Your task to perform on an android device: turn off notifications in google photos Image 0: 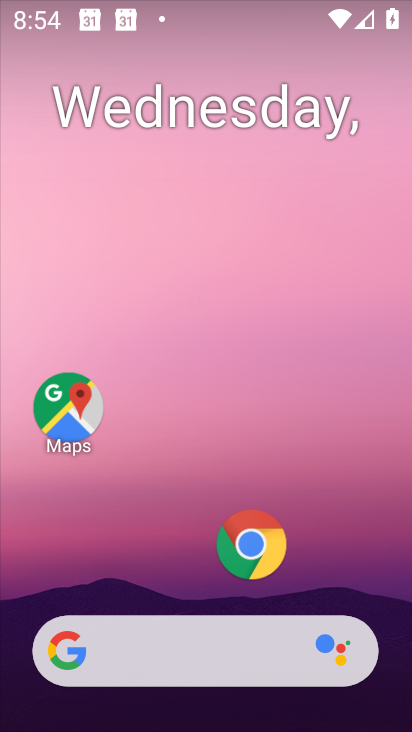
Step 0: drag from (262, 609) to (139, 30)
Your task to perform on an android device: turn off notifications in google photos Image 1: 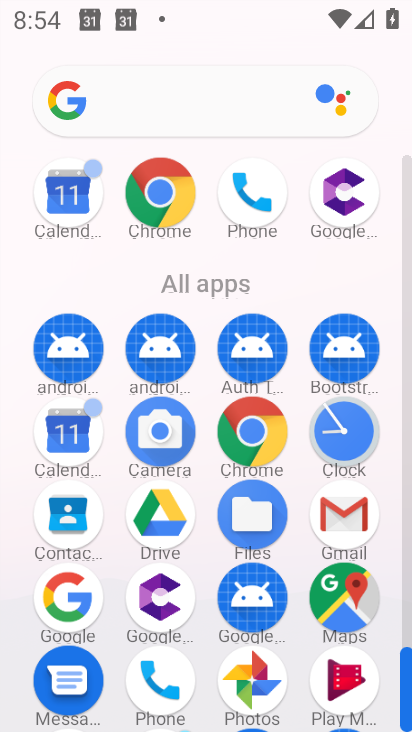
Step 1: click (252, 670)
Your task to perform on an android device: turn off notifications in google photos Image 2: 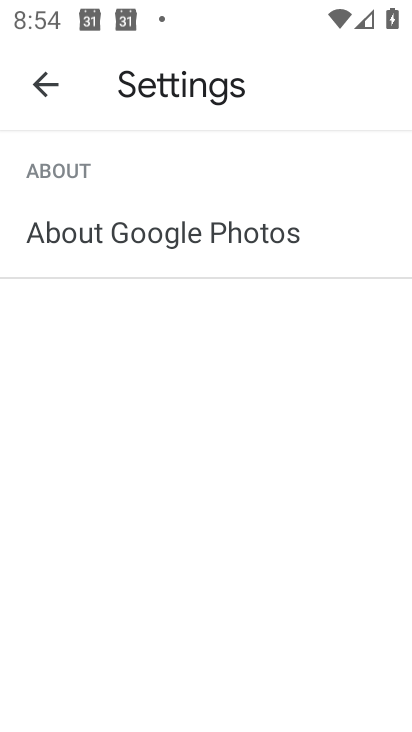
Step 2: click (49, 99)
Your task to perform on an android device: turn off notifications in google photos Image 3: 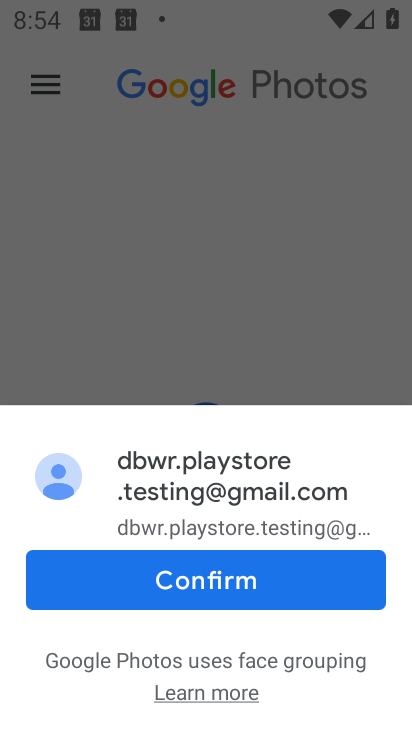
Step 3: click (43, 90)
Your task to perform on an android device: turn off notifications in google photos Image 4: 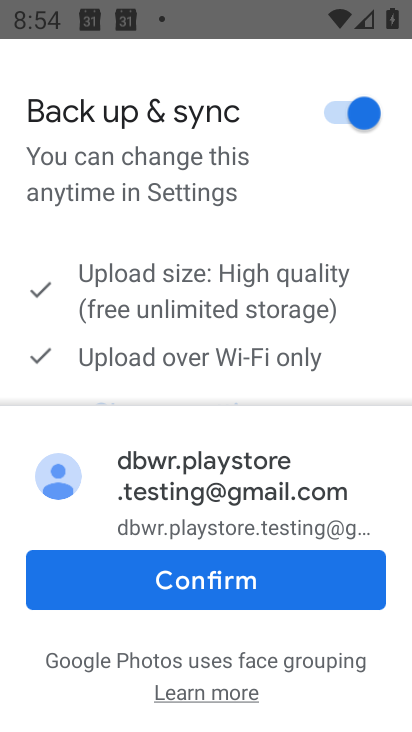
Step 4: click (162, 575)
Your task to perform on an android device: turn off notifications in google photos Image 5: 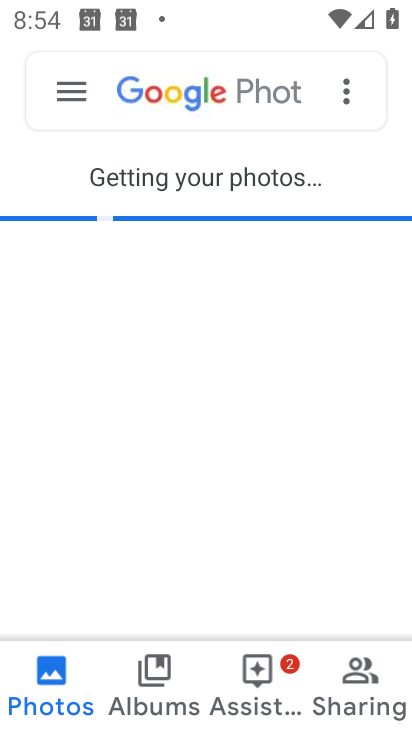
Step 5: click (62, 94)
Your task to perform on an android device: turn off notifications in google photos Image 6: 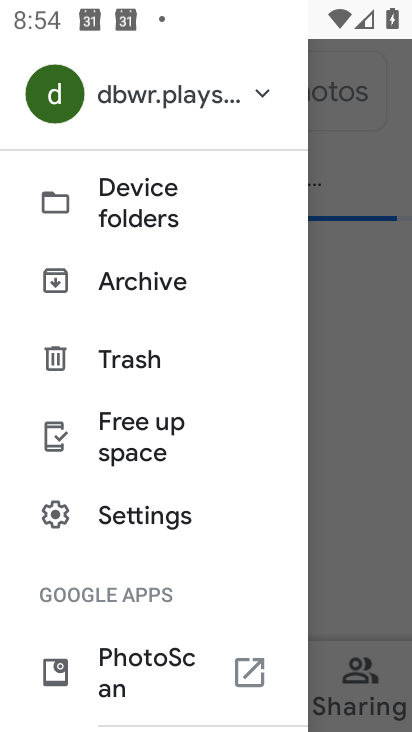
Step 6: click (122, 495)
Your task to perform on an android device: turn off notifications in google photos Image 7: 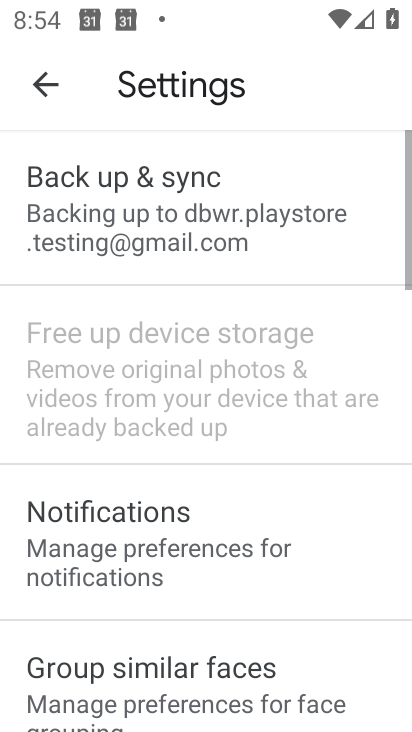
Step 7: click (122, 495)
Your task to perform on an android device: turn off notifications in google photos Image 8: 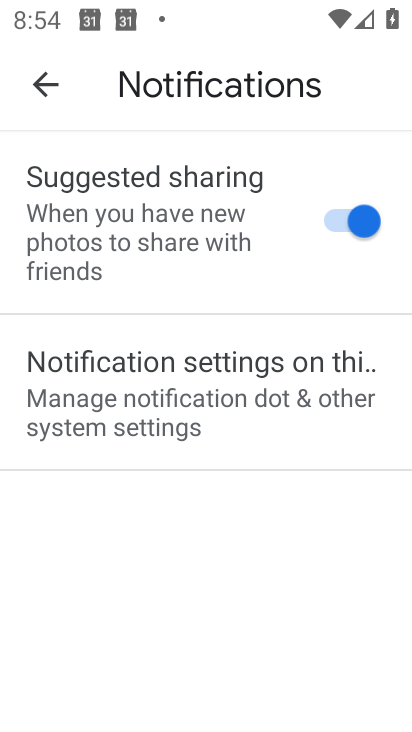
Step 8: click (125, 501)
Your task to perform on an android device: turn off notifications in google photos Image 9: 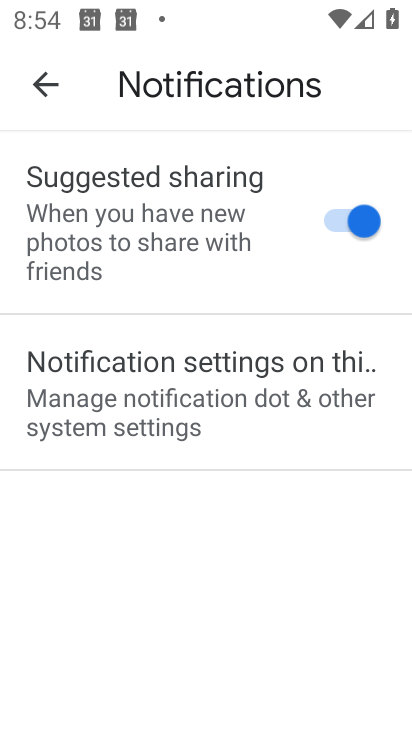
Step 9: click (134, 443)
Your task to perform on an android device: turn off notifications in google photos Image 10: 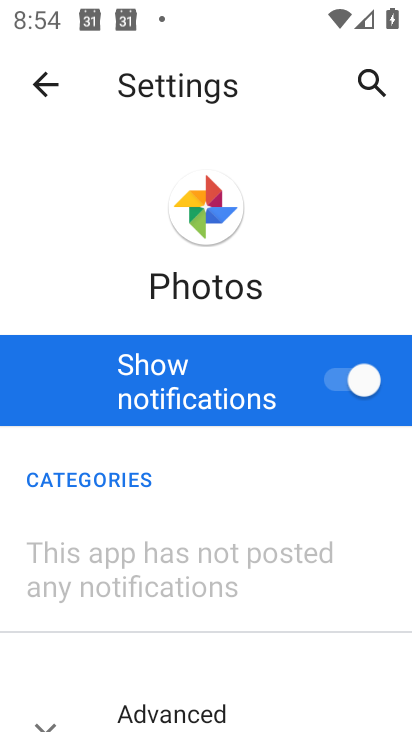
Step 10: drag from (248, 555) to (267, 5)
Your task to perform on an android device: turn off notifications in google photos Image 11: 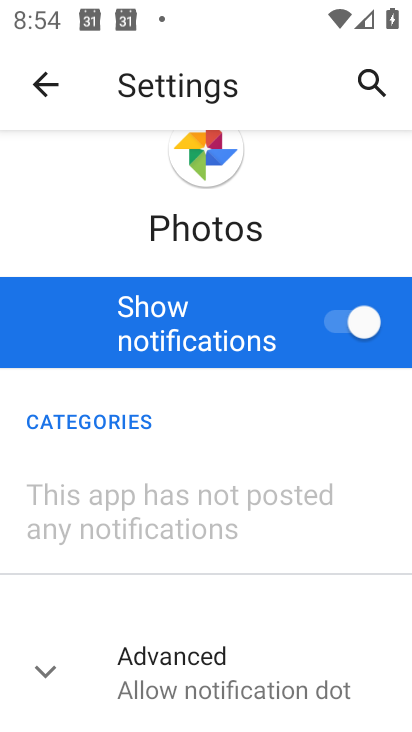
Step 11: click (350, 338)
Your task to perform on an android device: turn off notifications in google photos Image 12: 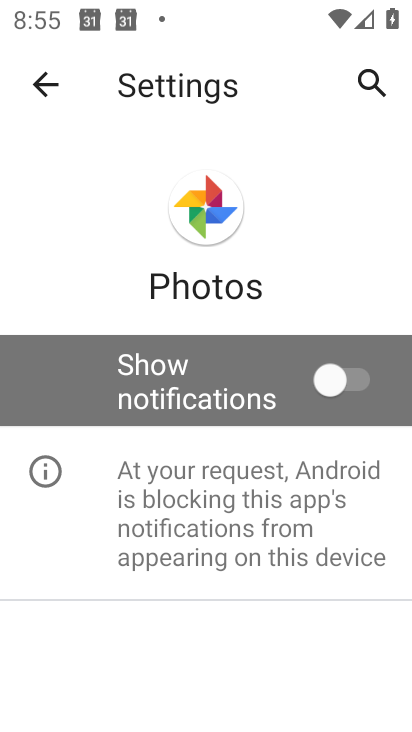
Step 12: task complete